Your task to perform on an android device: change notifications settings Image 0: 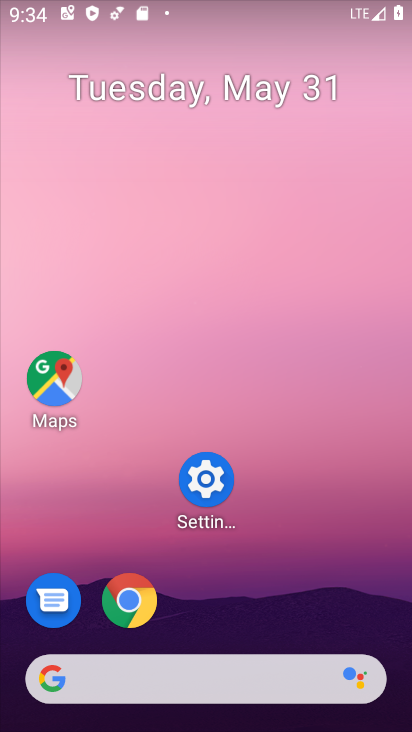
Step 0: drag from (226, 697) to (259, 297)
Your task to perform on an android device: change notifications settings Image 1: 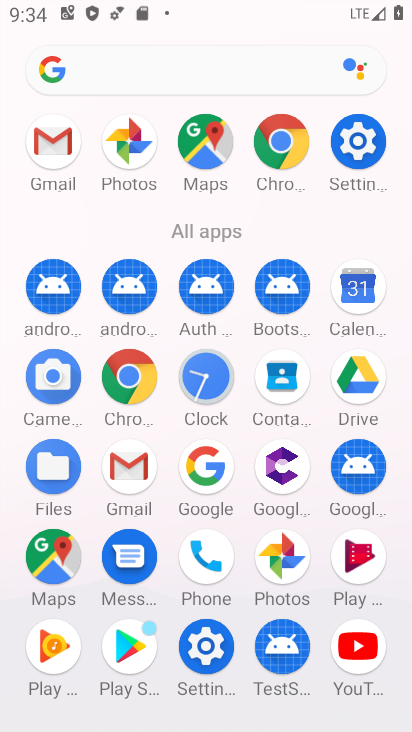
Step 1: click (347, 167)
Your task to perform on an android device: change notifications settings Image 2: 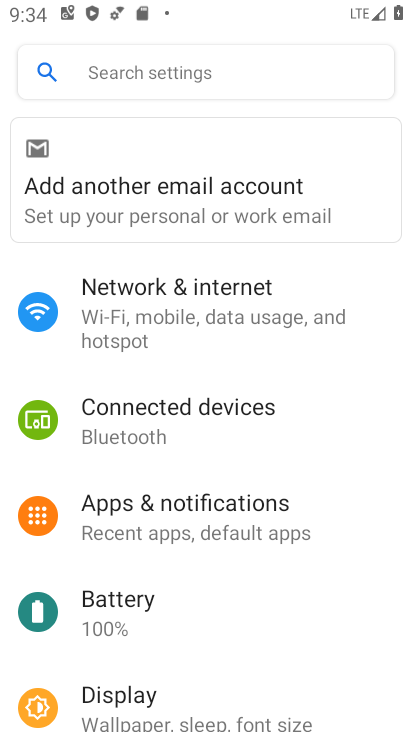
Step 2: click (163, 81)
Your task to perform on an android device: change notifications settings Image 3: 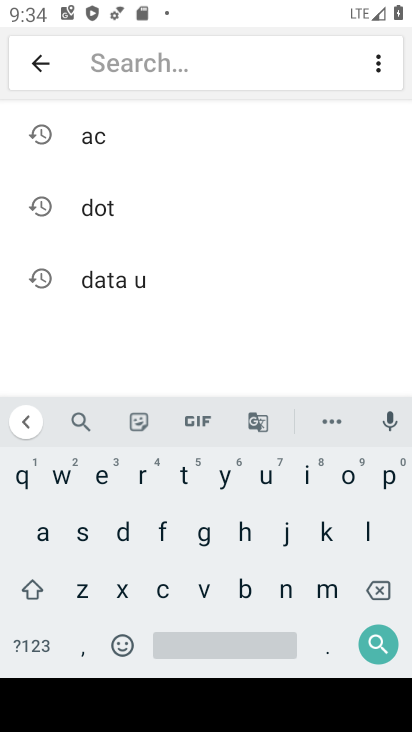
Step 3: click (281, 584)
Your task to perform on an android device: change notifications settings Image 4: 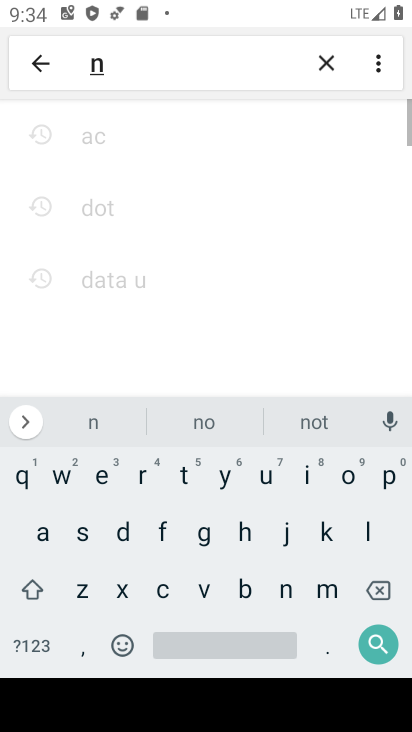
Step 4: click (348, 487)
Your task to perform on an android device: change notifications settings Image 5: 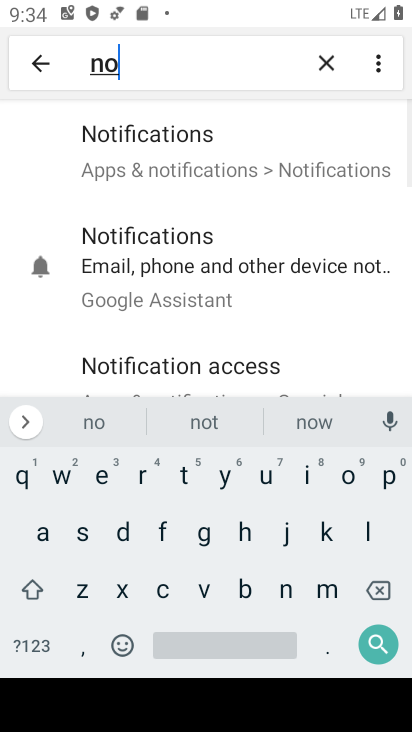
Step 5: click (174, 155)
Your task to perform on an android device: change notifications settings Image 6: 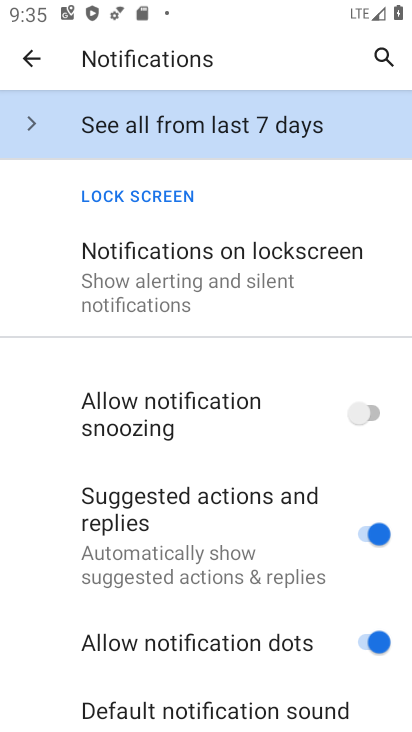
Step 6: click (161, 262)
Your task to perform on an android device: change notifications settings Image 7: 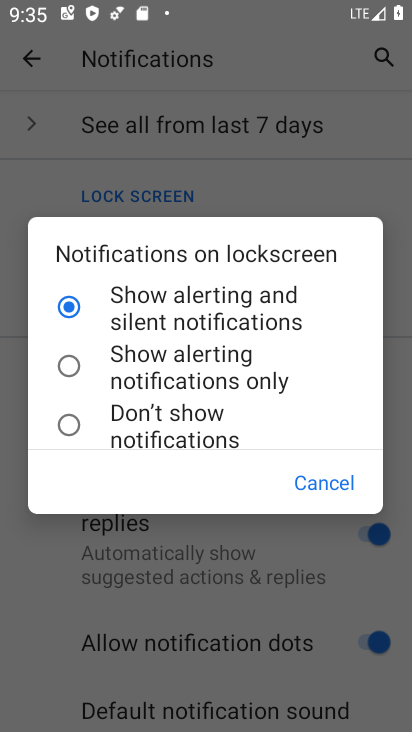
Step 7: task complete